Your task to perform on an android device: Open the web browser Image 0: 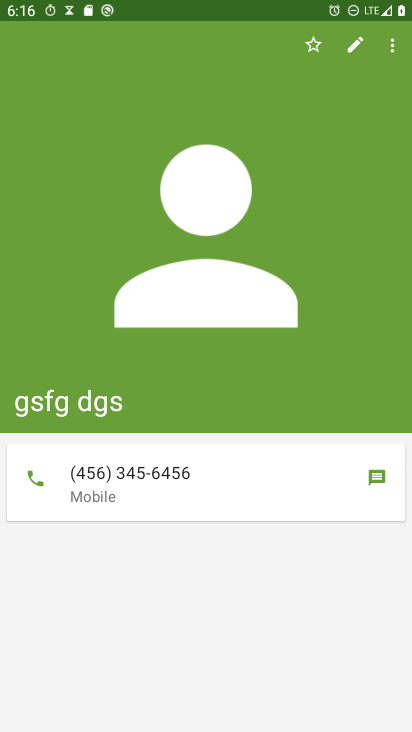
Step 0: press home button
Your task to perform on an android device: Open the web browser Image 1: 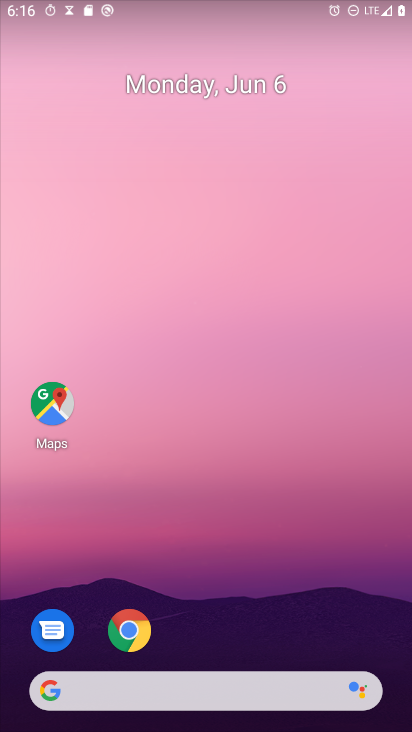
Step 1: click (132, 608)
Your task to perform on an android device: Open the web browser Image 2: 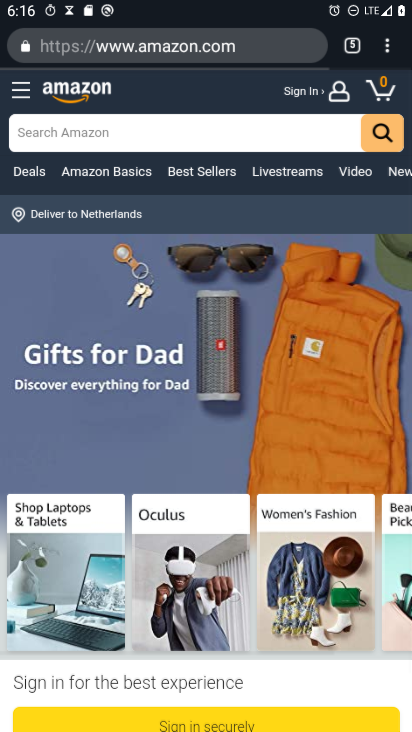
Step 2: task complete